Your task to perform on an android device: allow cookies in the chrome app Image 0: 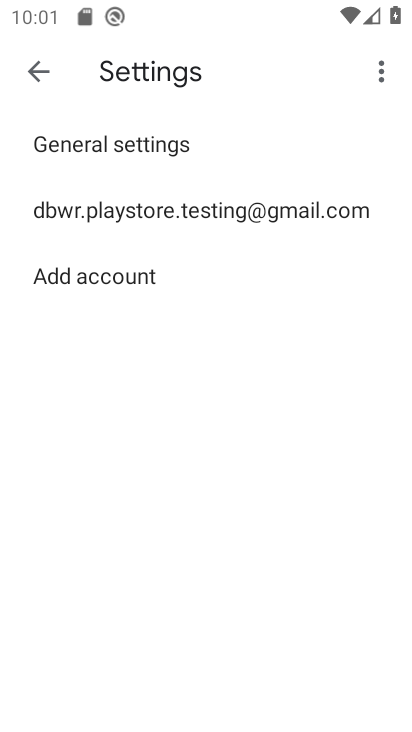
Step 0: press home button
Your task to perform on an android device: allow cookies in the chrome app Image 1: 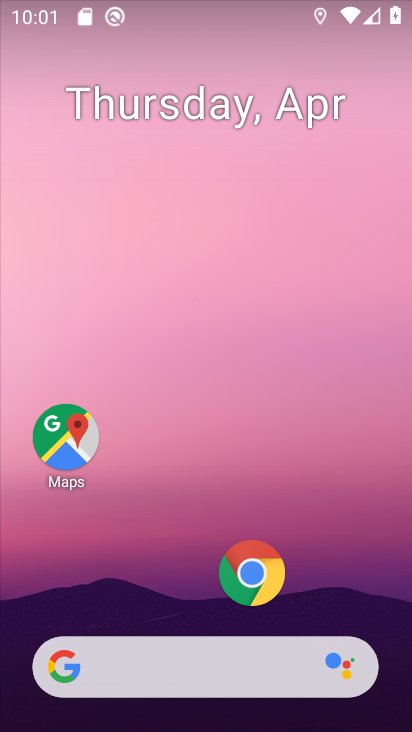
Step 1: click (255, 585)
Your task to perform on an android device: allow cookies in the chrome app Image 2: 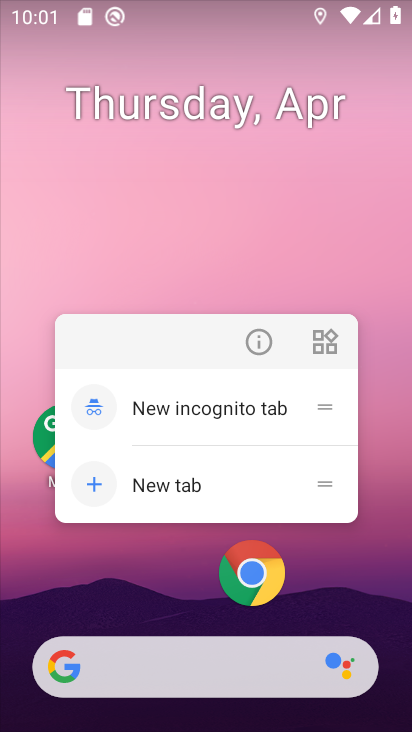
Step 2: click (249, 560)
Your task to perform on an android device: allow cookies in the chrome app Image 3: 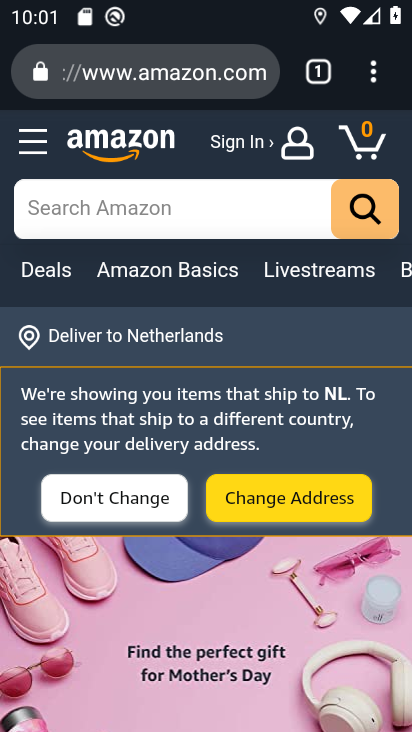
Step 3: drag from (376, 74) to (142, 571)
Your task to perform on an android device: allow cookies in the chrome app Image 4: 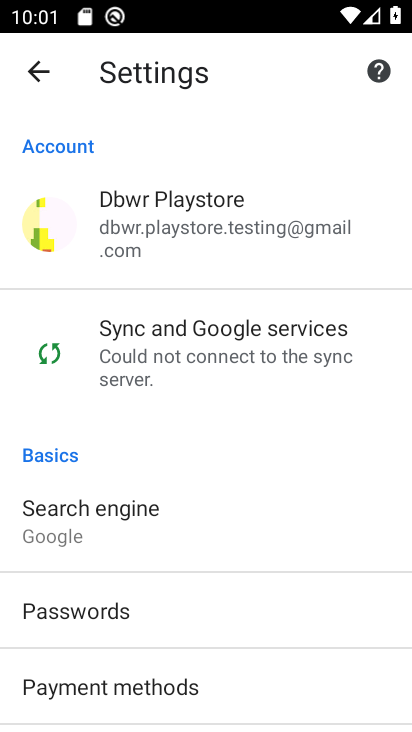
Step 4: drag from (241, 621) to (259, 289)
Your task to perform on an android device: allow cookies in the chrome app Image 5: 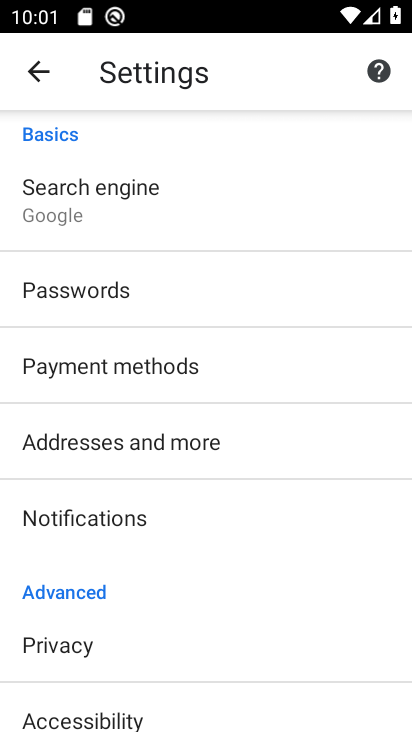
Step 5: drag from (204, 600) to (226, 287)
Your task to perform on an android device: allow cookies in the chrome app Image 6: 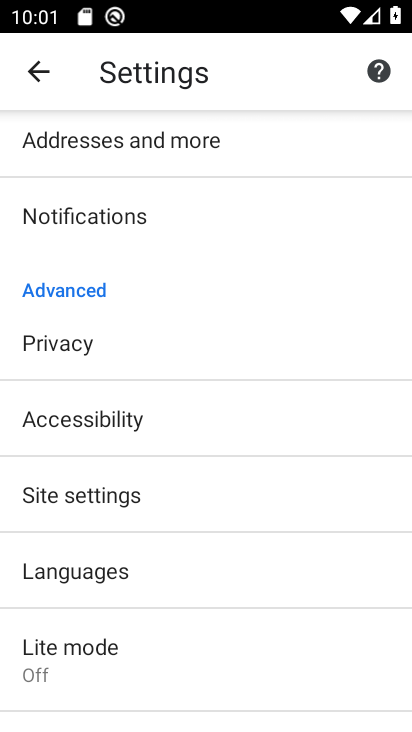
Step 6: click (162, 472)
Your task to perform on an android device: allow cookies in the chrome app Image 7: 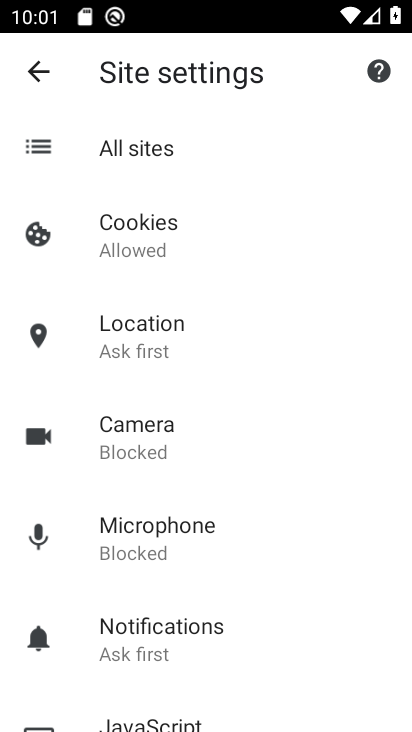
Step 7: drag from (231, 597) to (269, 294)
Your task to perform on an android device: allow cookies in the chrome app Image 8: 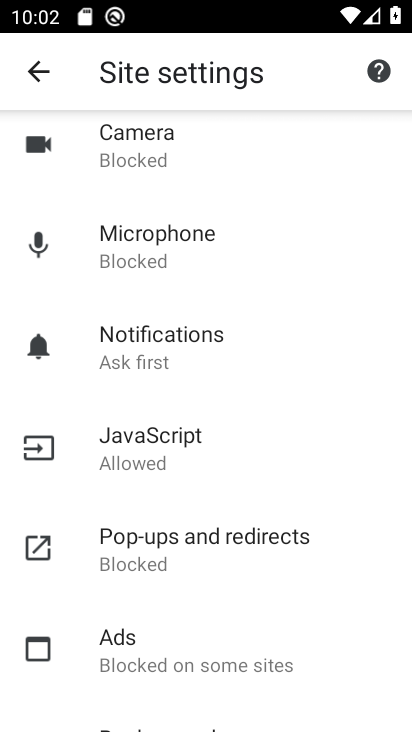
Step 8: drag from (262, 248) to (240, 497)
Your task to perform on an android device: allow cookies in the chrome app Image 9: 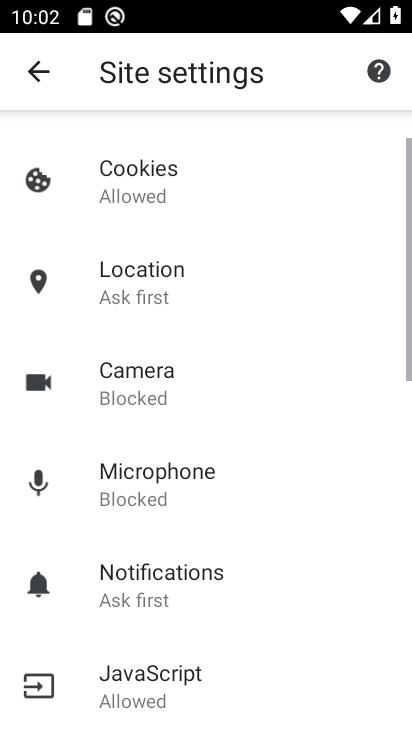
Step 9: click (175, 185)
Your task to perform on an android device: allow cookies in the chrome app Image 10: 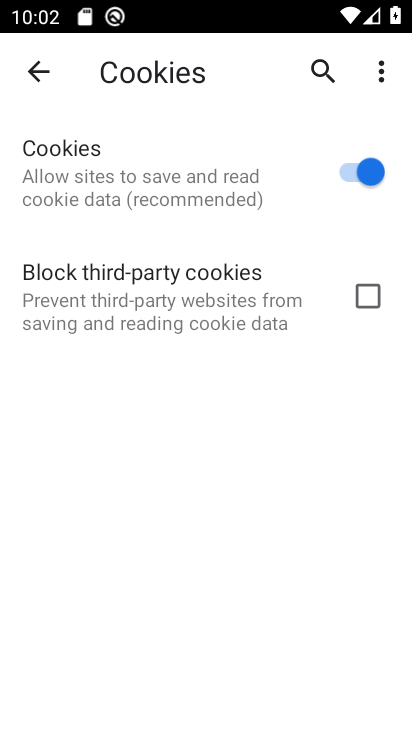
Step 10: task complete